Your task to perform on an android device: Clear all items from cart on newegg. Add "logitech g903" to the cart on newegg Image 0: 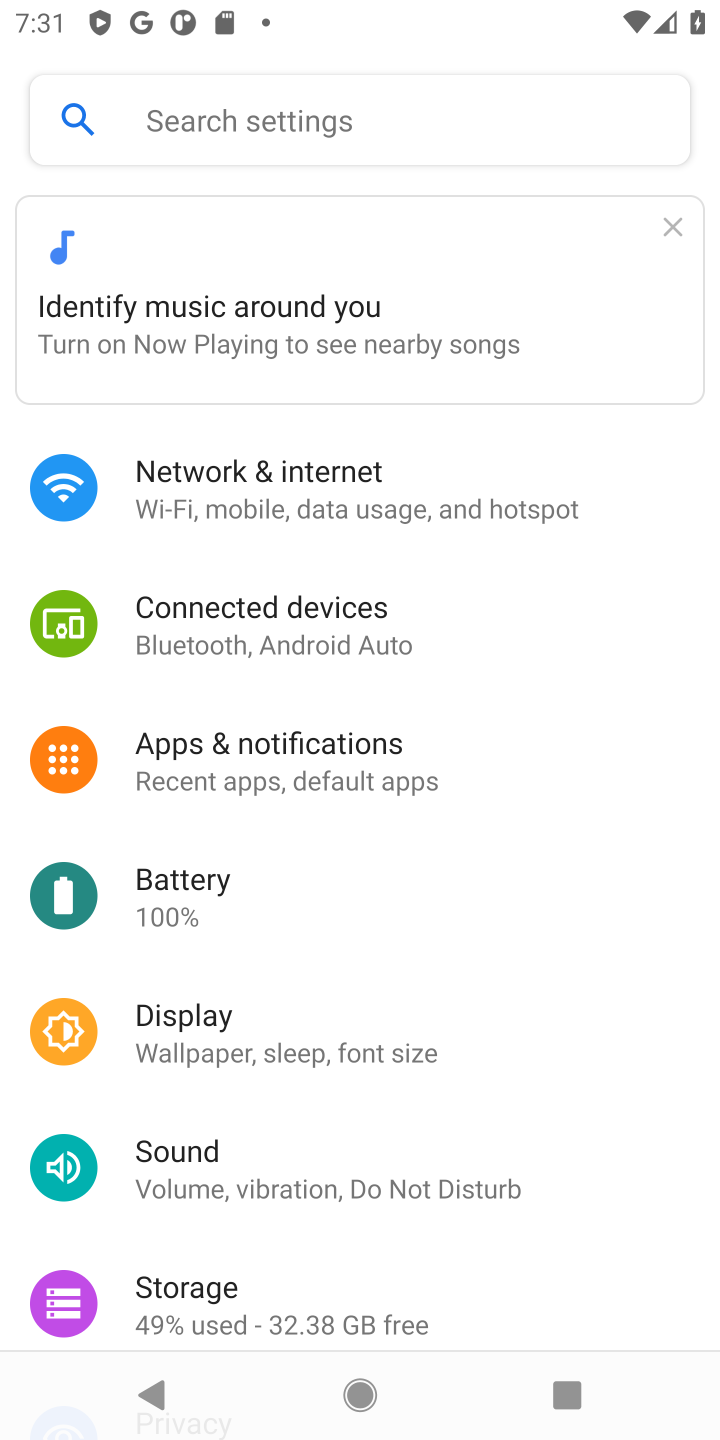
Step 0: press home button
Your task to perform on an android device: Clear all items from cart on newegg. Add "logitech g903" to the cart on newegg Image 1: 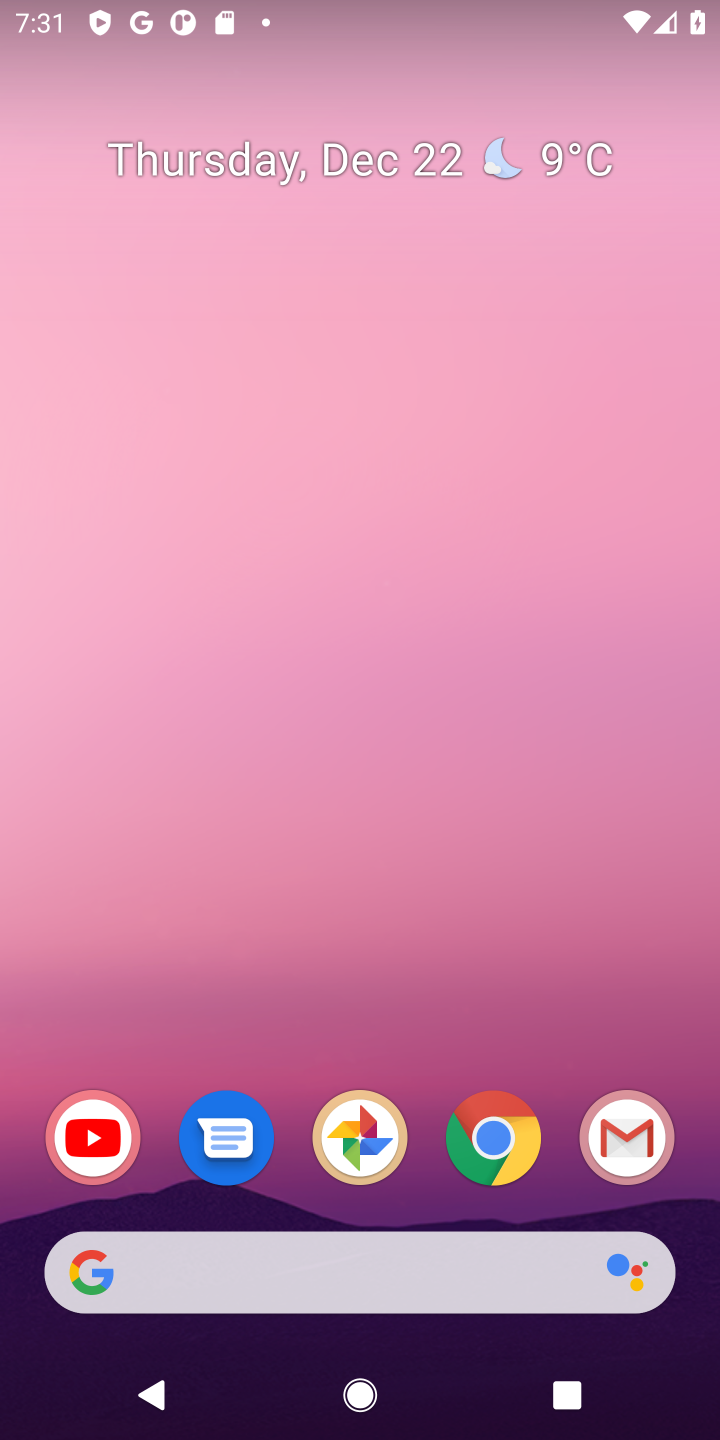
Step 1: click (491, 1147)
Your task to perform on an android device: Clear all items from cart on newegg. Add "logitech g903" to the cart on newegg Image 2: 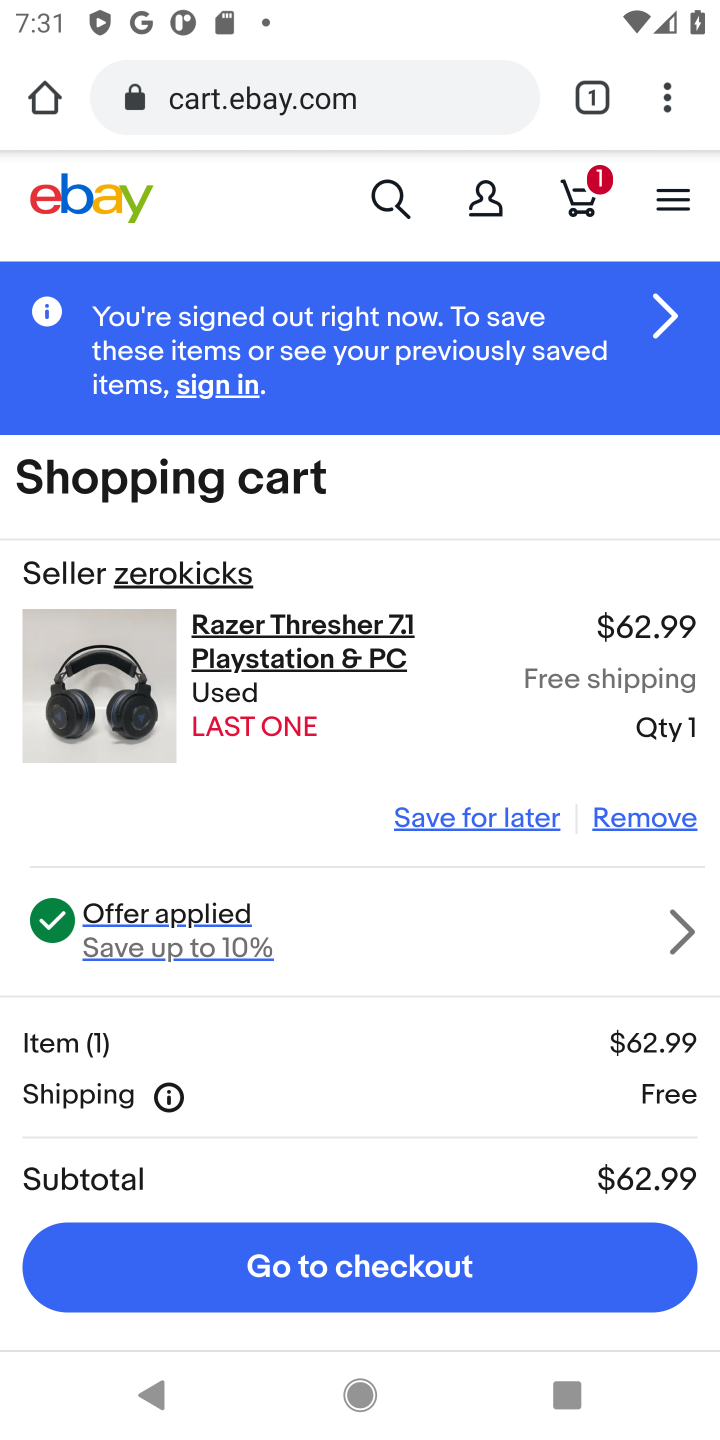
Step 2: click (465, 85)
Your task to perform on an android device: Clear all items from cart on newegg. Add "logitech g903" to the cart on newegg Image 3: 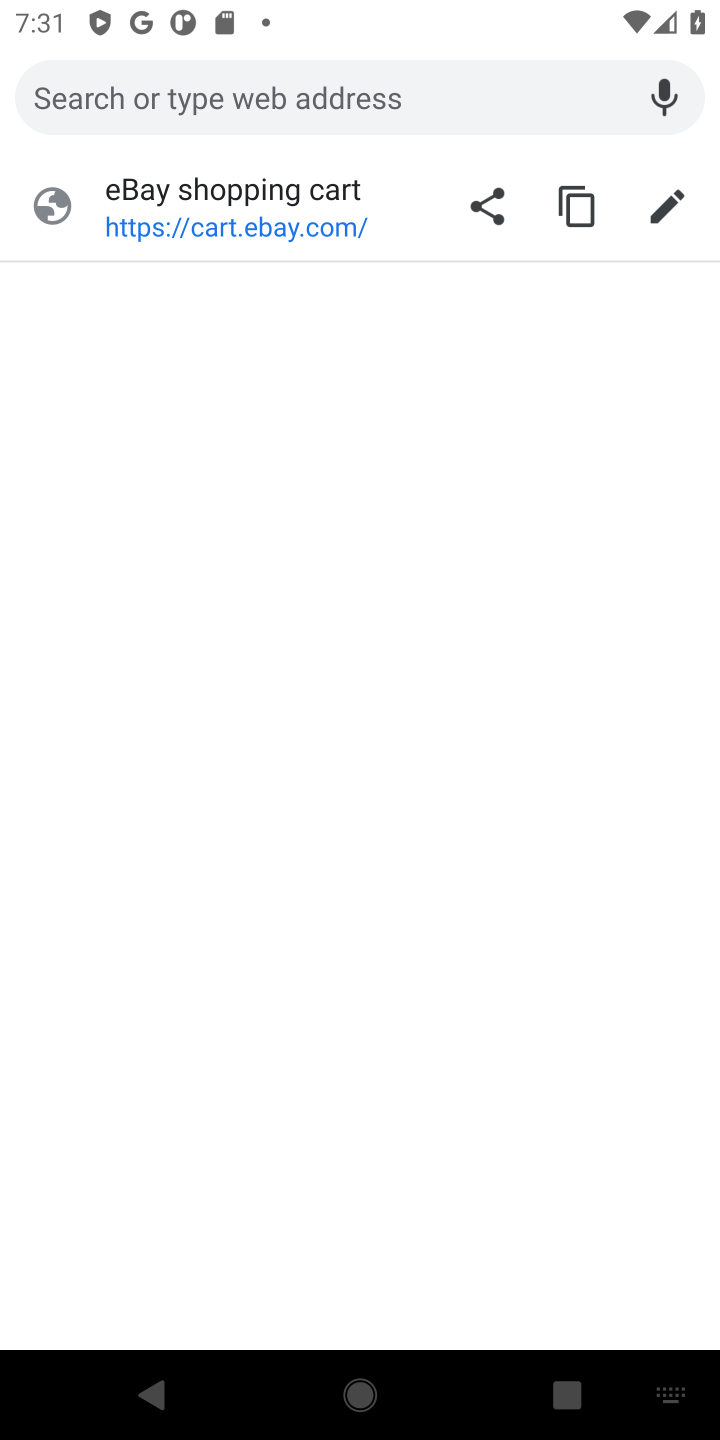
Step 3: type "newegg"
Your task to perform on an android device: Clear all items from cart on newegg. Add "logitech g903" to the cart on newegg Image 4: 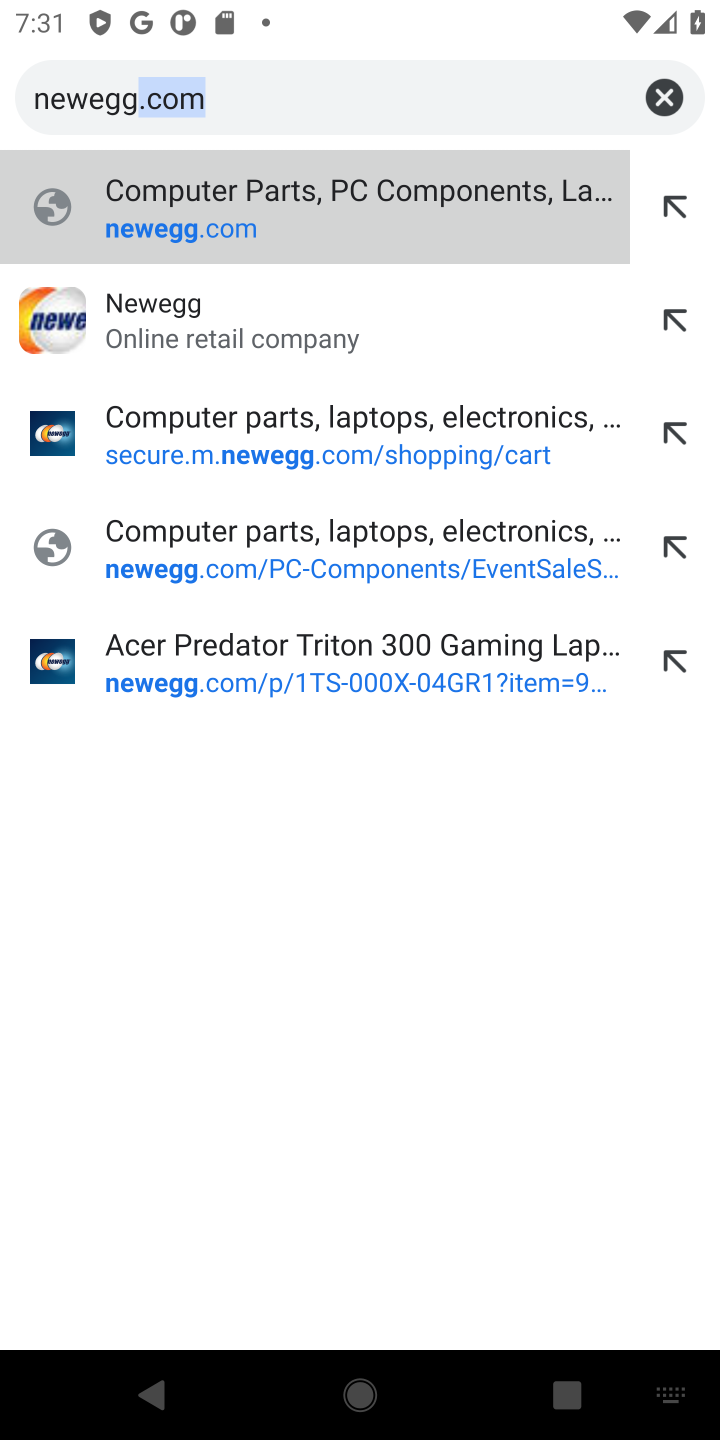
Step 4: click (392, 88)
Your task to perform on an android device: Clear all items from cart on newegg. Add "logitech g903" to the cart on newegg Image 5: 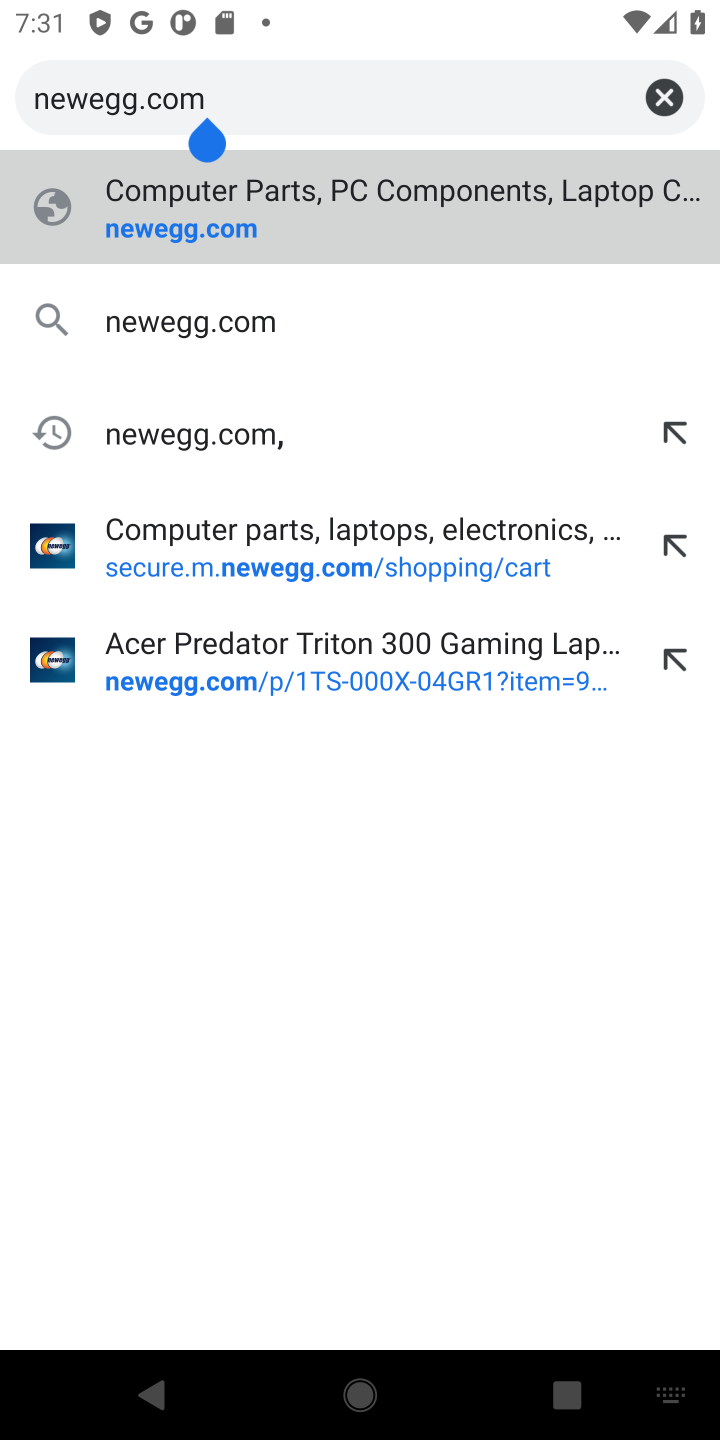
Step 5: click (257, 323)
Your task to perform on an android device: Clear all items from cart on newegg. Add "logitech g903" to the cart on newegg Image 6: 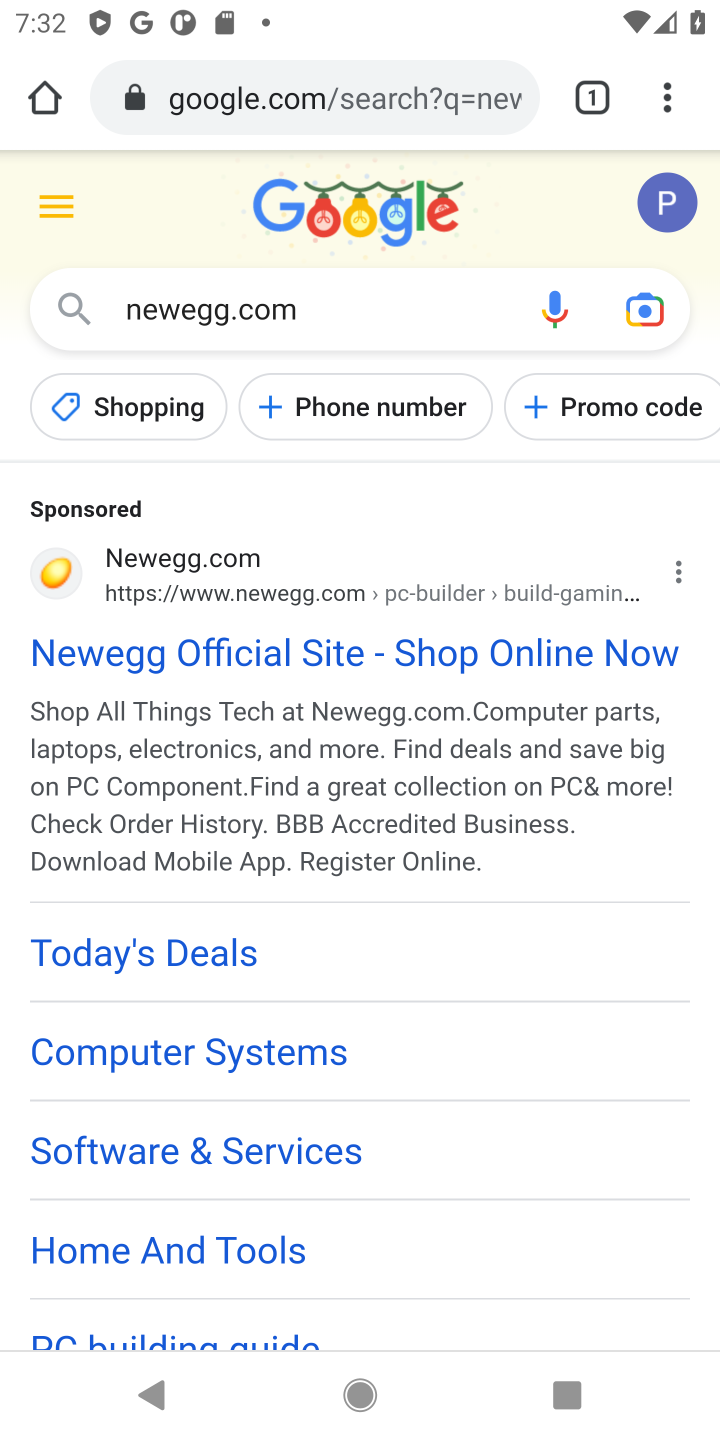
Step 6: drag from (282, 1027) to (290, 396)
Your task to perform on an android device: Clear all items from cart on newegg. Add "logitech g903" to the cart on newegg Image 7: 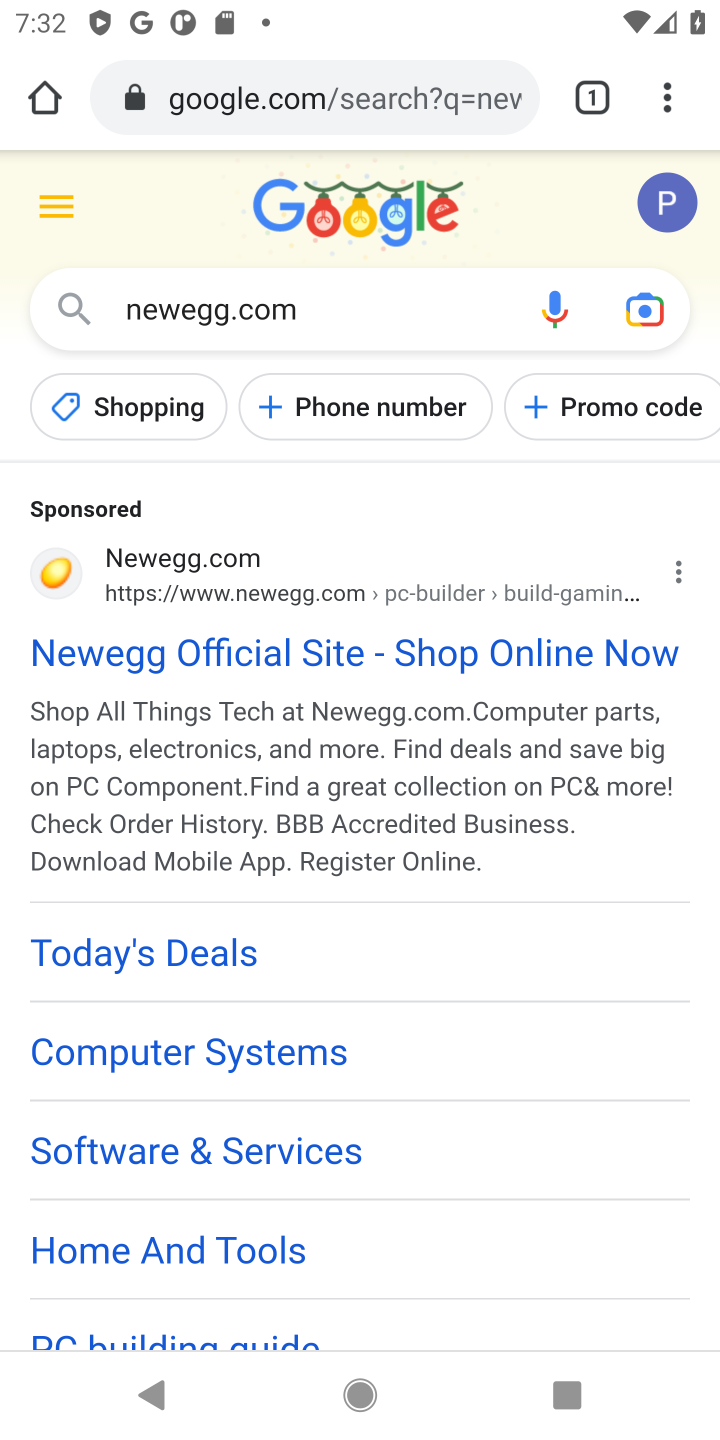
Step 7: drag from (190, 1134) to (125, 772)
Your task to perform on an android device: Clear all items from cart on newegg. Add "logitech g903" to the cart on newegg Image 8: 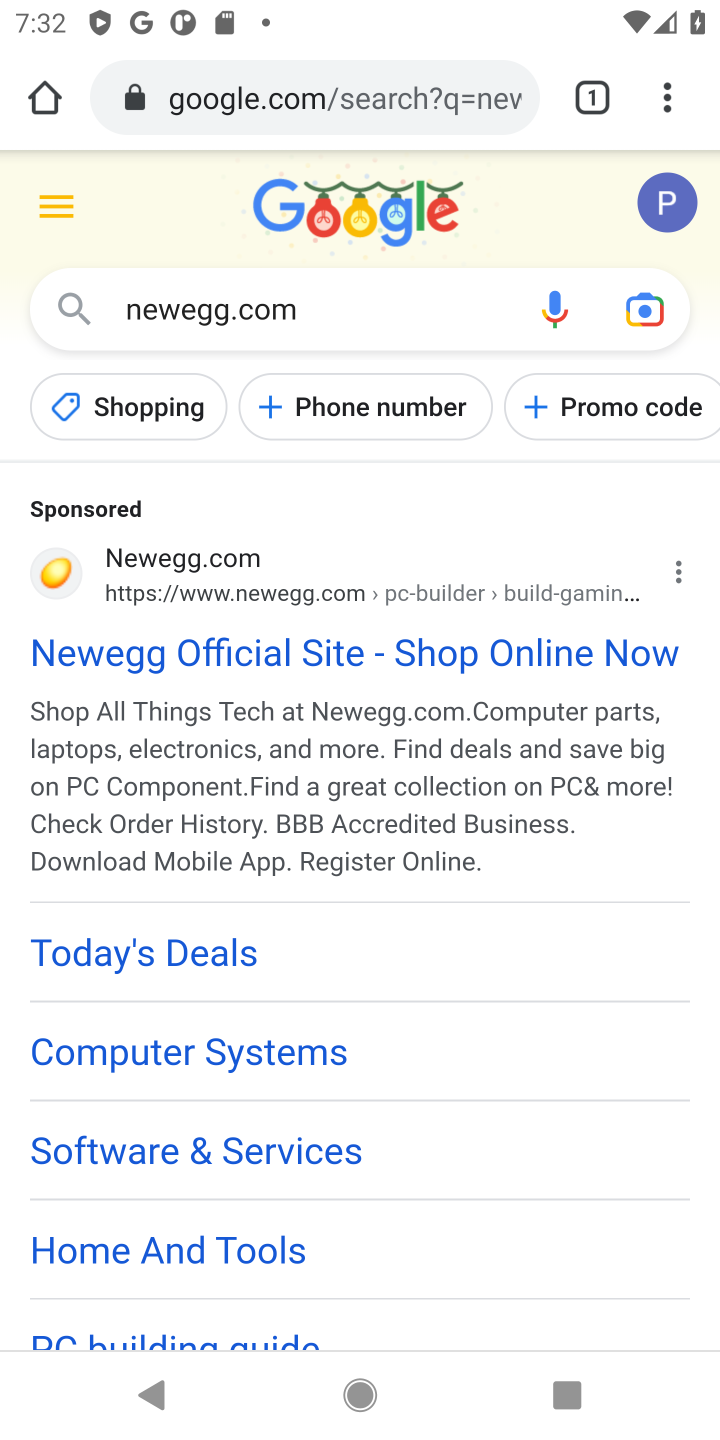
Step 8: drag from (229, 1038) to (217, 528)
Your task to perform on an android device: Clear all items from cart on newegg. Add "logitech g903" to the cart on newegg Image 9: 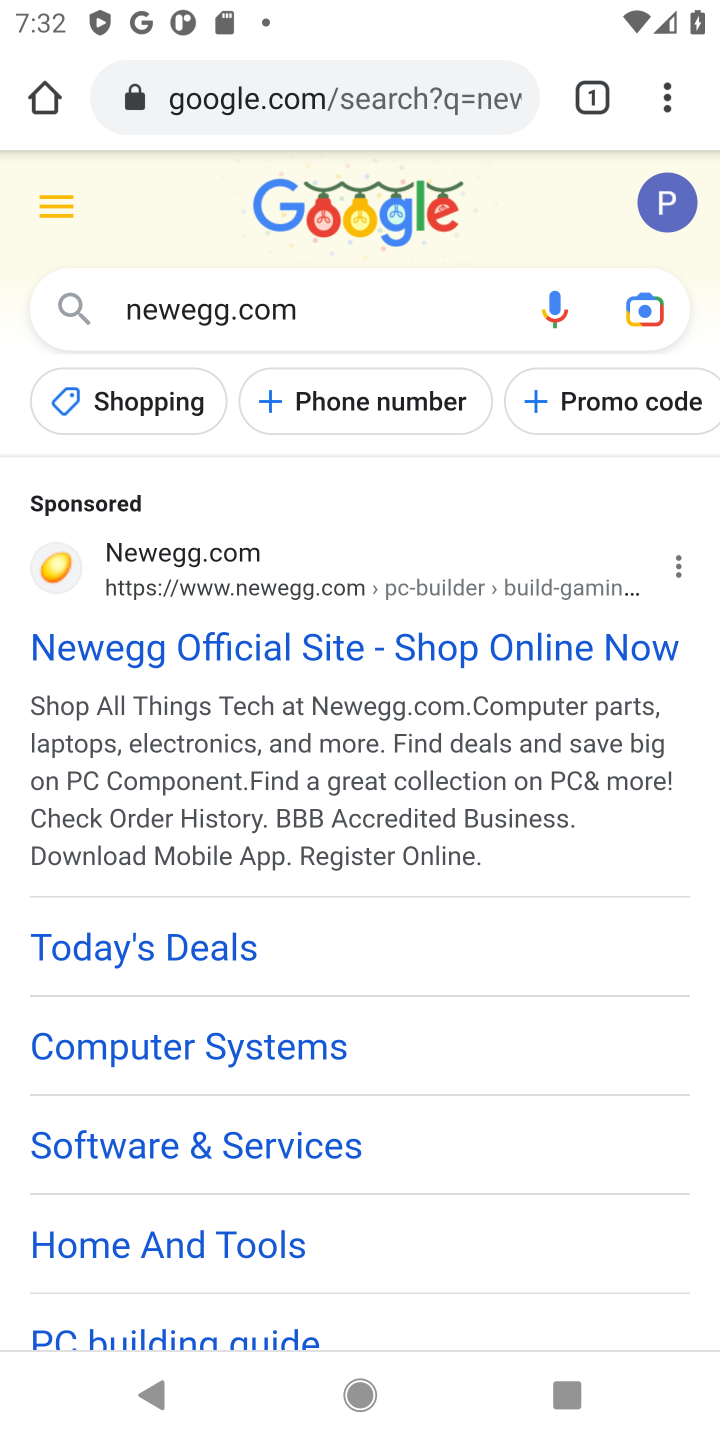
Step 9: click (235, 583)
Your task to perform on an android device: Clear all items from cart on newegg. Add "logitech g903" to the cart on newegg Image 10: 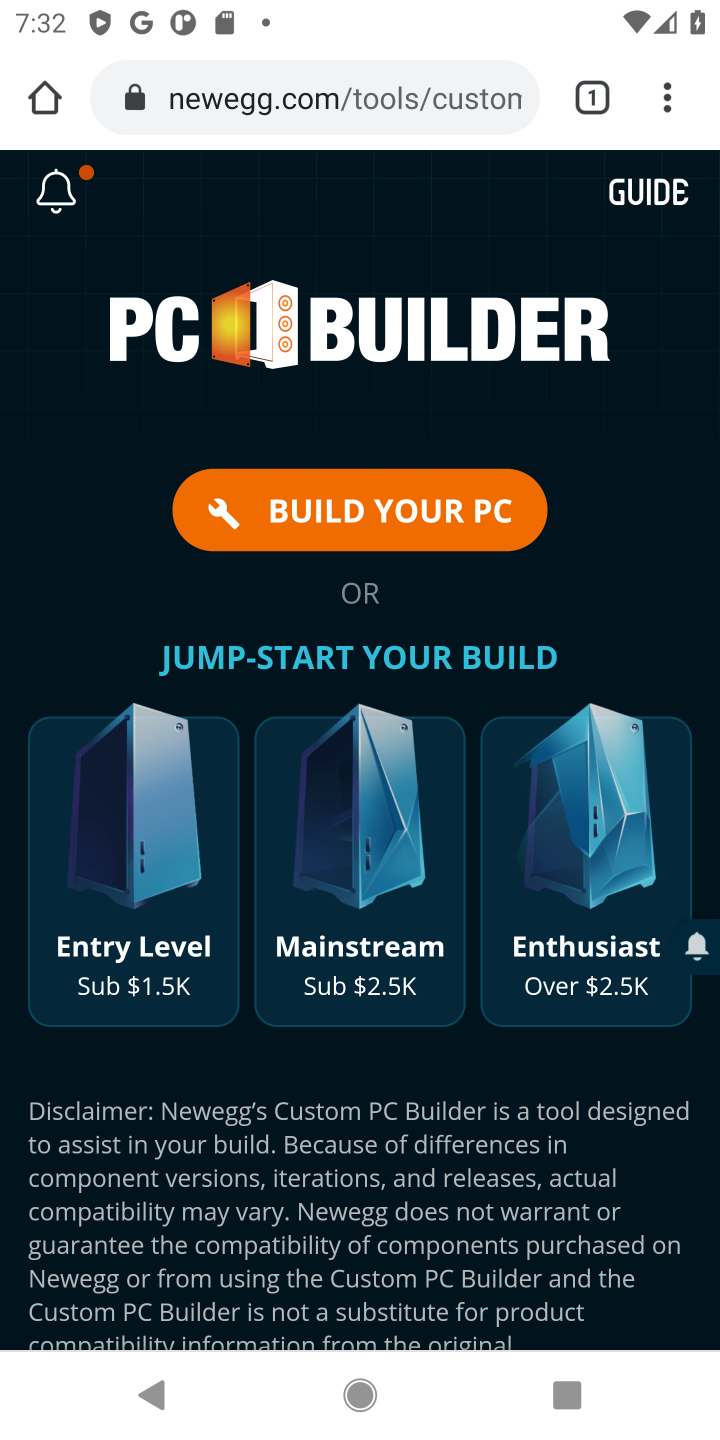
Step 10: press back button
Your task to perform on an android device: Clear all items from cart on newegg. Add "logitech g903" to the cart on newegg Image 11: 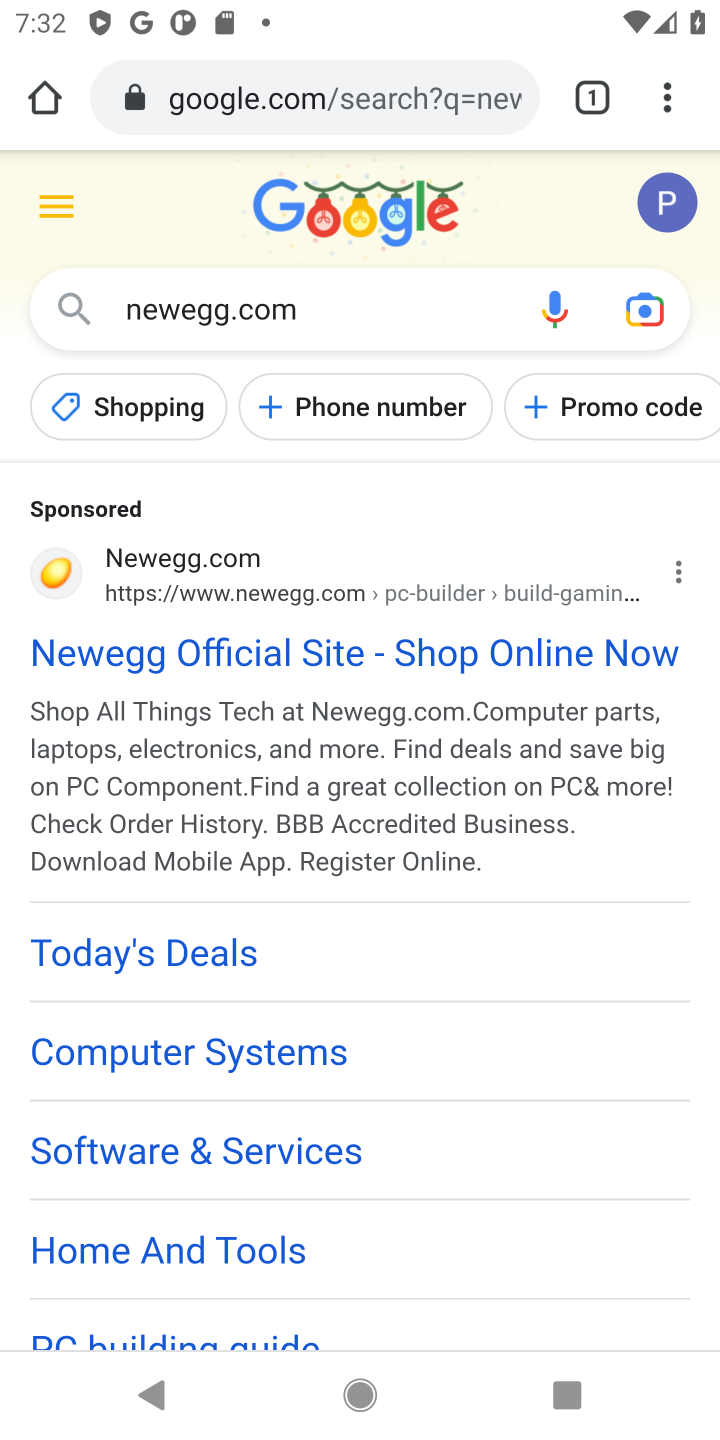
Step 11: drag from (457, 1156) to (451, 848)
Your task to perform on an android device: Clear all items from cart on newegg. Add "logitech g903" to the cart on newegg Image 12: 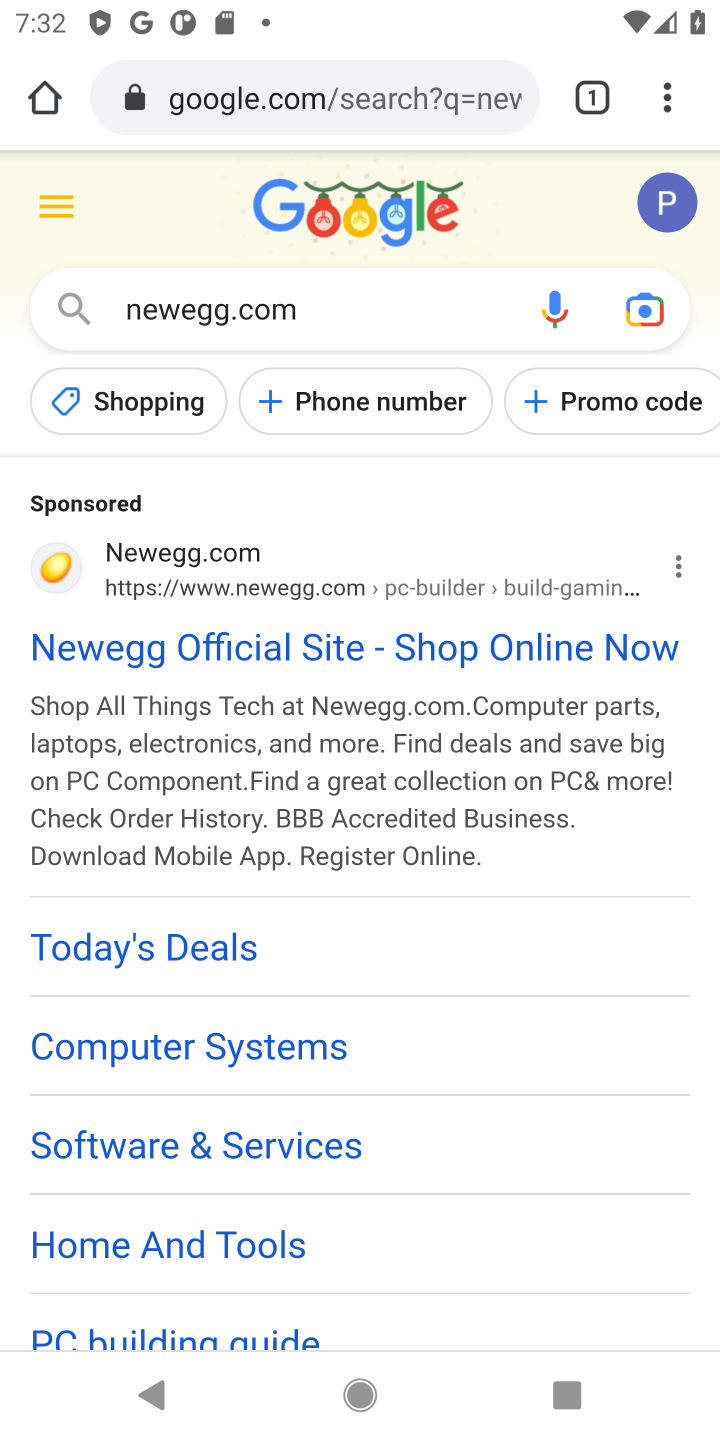
Step 12: drag from (112, 1094) to (2, 549)
Your task to perform on an android device: Clear all items from cart on newegg. Add "logitech g903" to the cart on newegg Image 13: 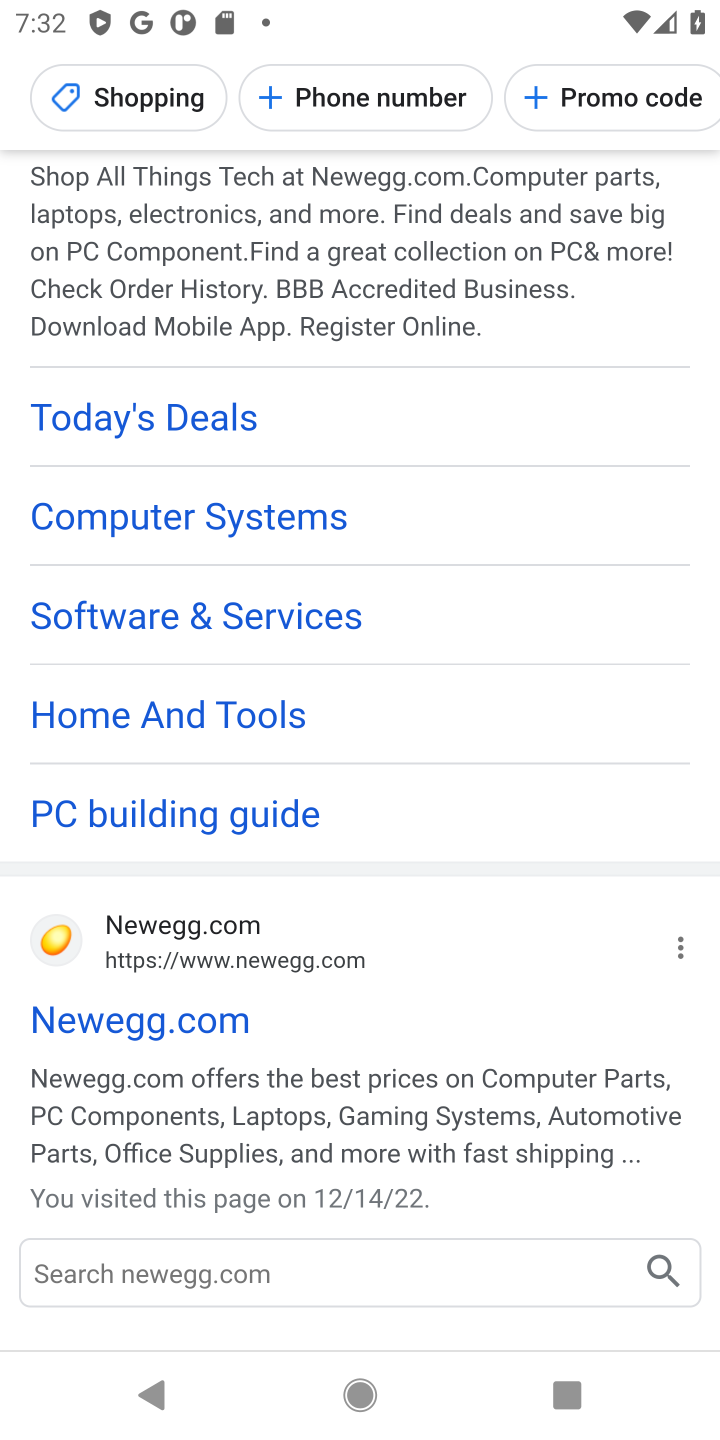
Step 13: click (303, 959)
Your task to perform on an android device: Clear all items from cart on newegg. Add "logitech g903" to the cart on newegg Image 14: 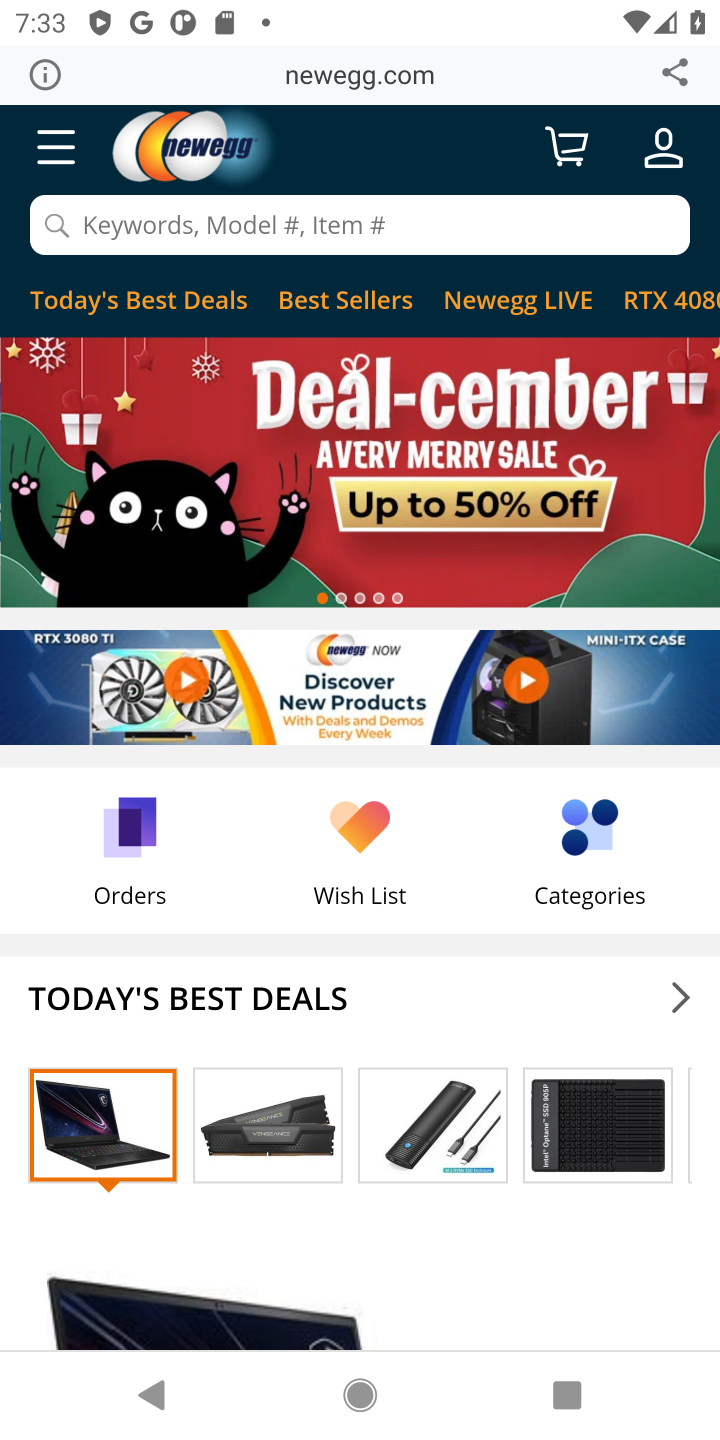
Step 14: click (480, 235)
Your task to perform on an android device: Clear all items from cart on newegg. Add "logitech g903" to the cart on newegg Image 15: 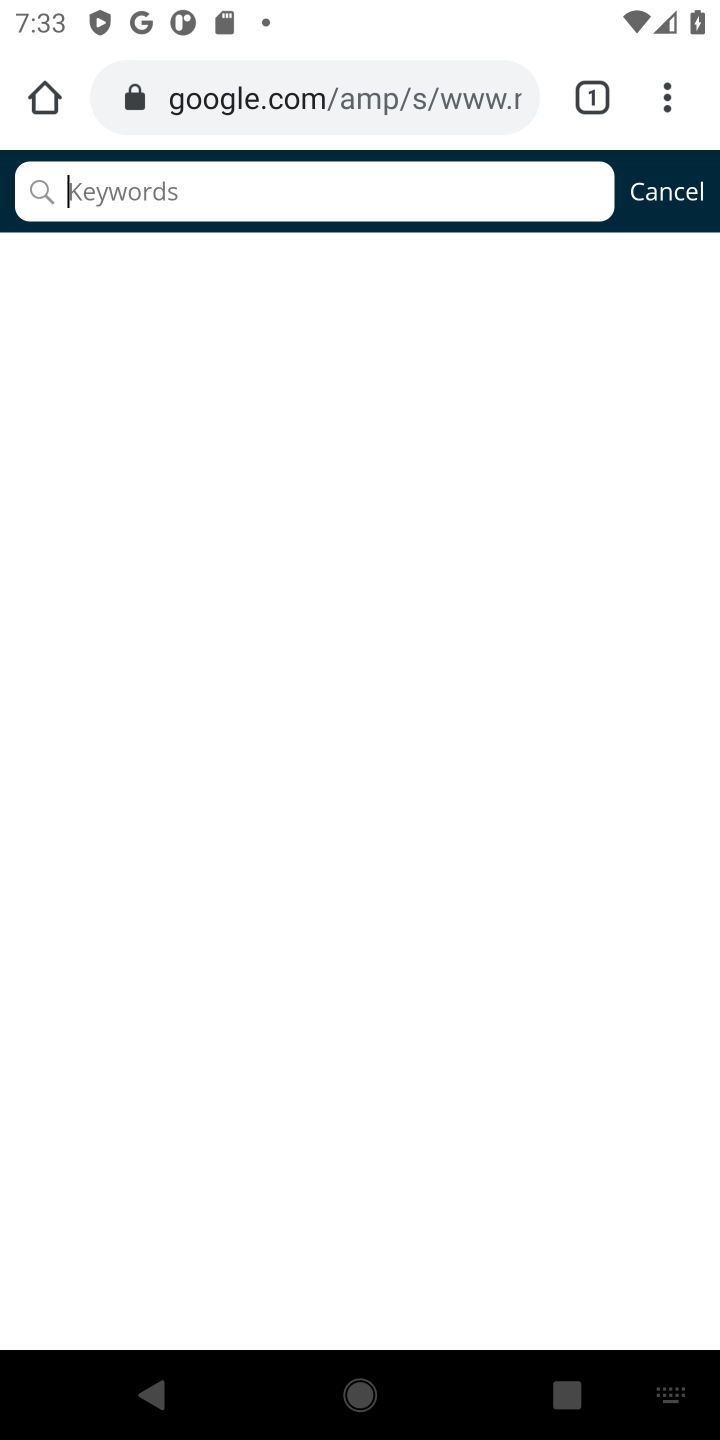
Step 15: click (568, 152)
Your task to perform on an android device: Clear all items from cart on newegg. Add "logitech g903" to the cart on newegg Image 16: 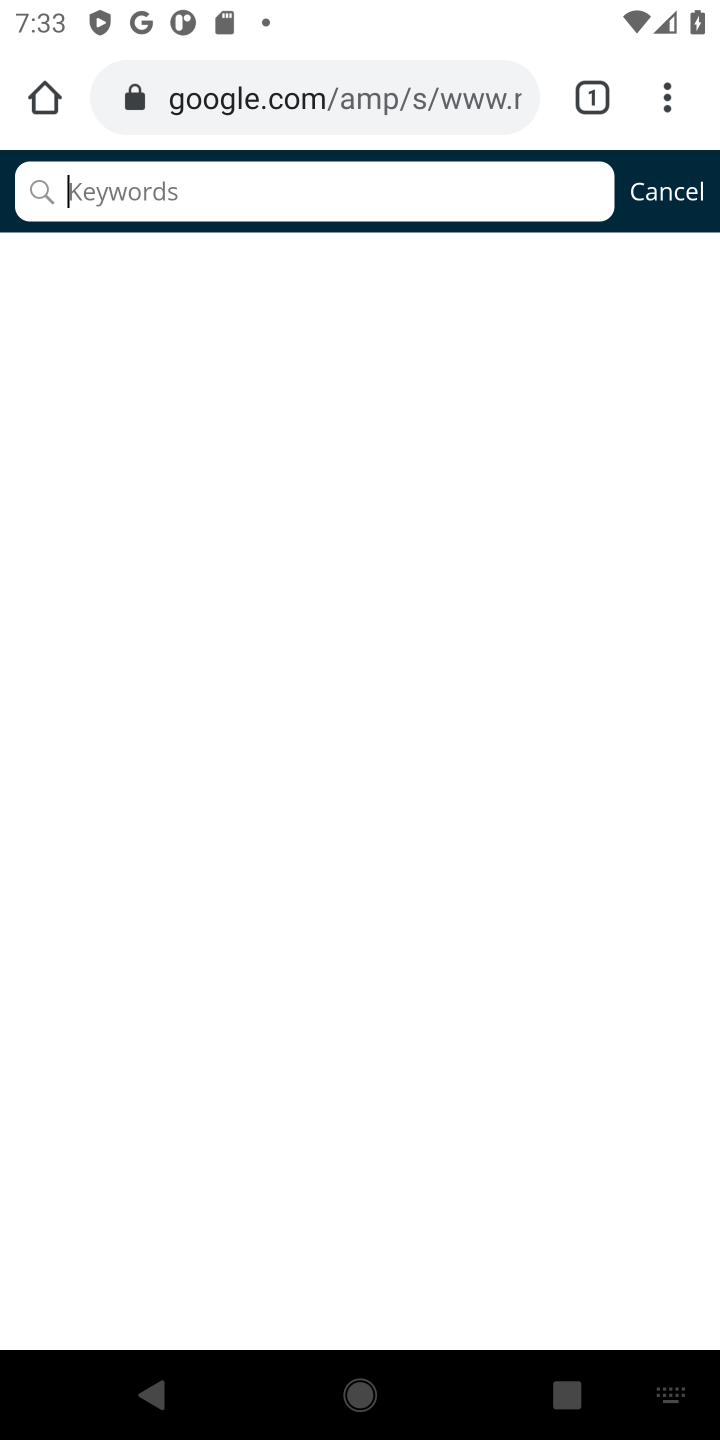
Step 16: click (649, 184)
Your task to perform on an android device: Clear all items from cart on newegg. Add "logitech g903" to the cart on newegg Image 17: 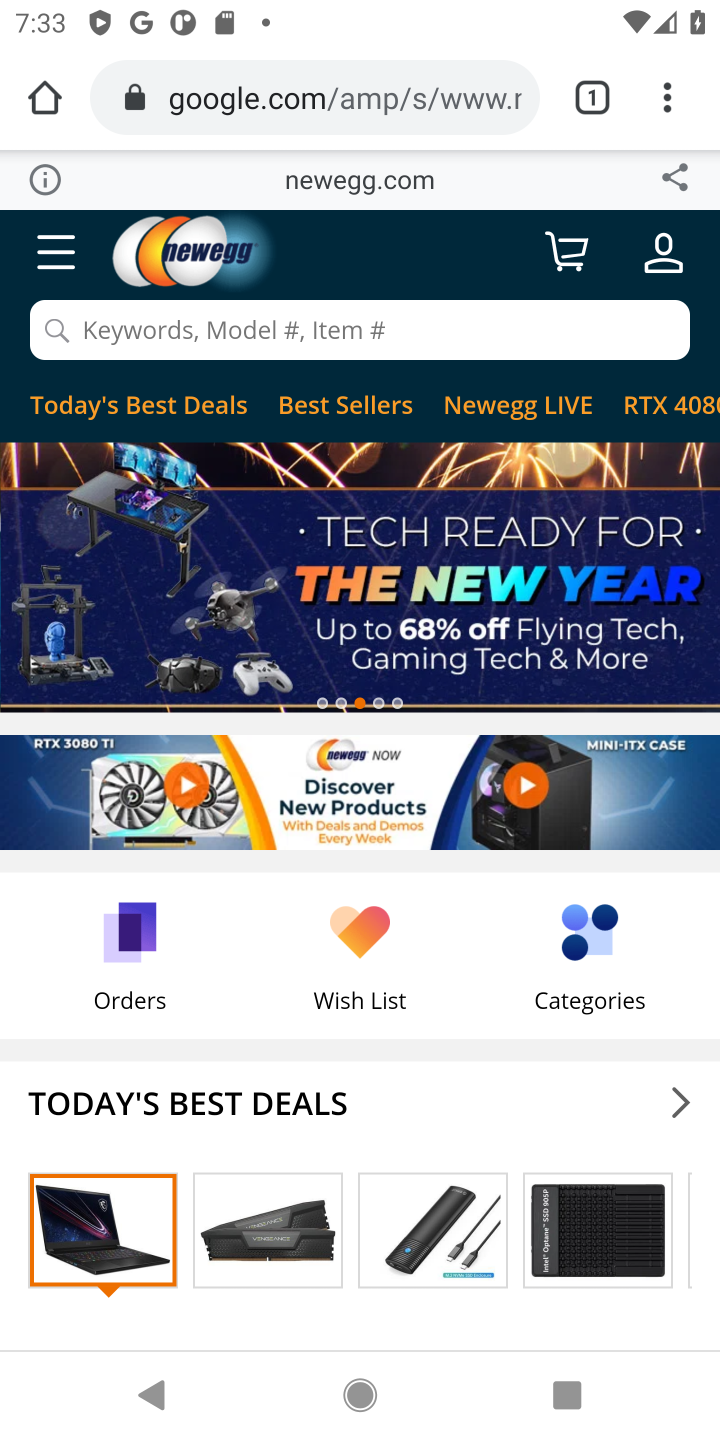
Step 17: click (571, 267)
Your task to perform on an android device: Clear all items from cart on newegg. Add "logitech g903" to the cart on newegg Image 18: 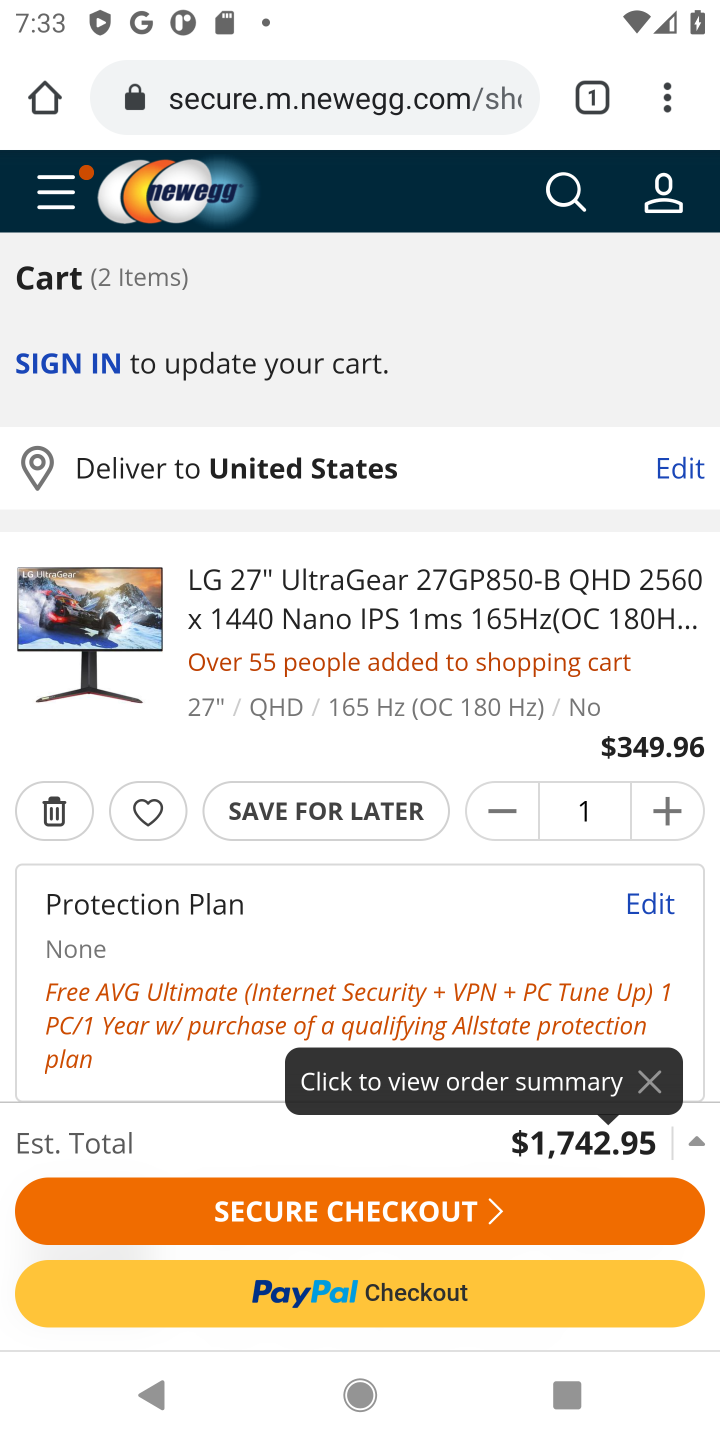
Step 18: click (52, 813)
Your task to perform on an android device: Clear all items from cart on newegg. Add "logitech g903" to the cart on newegg Image 19: 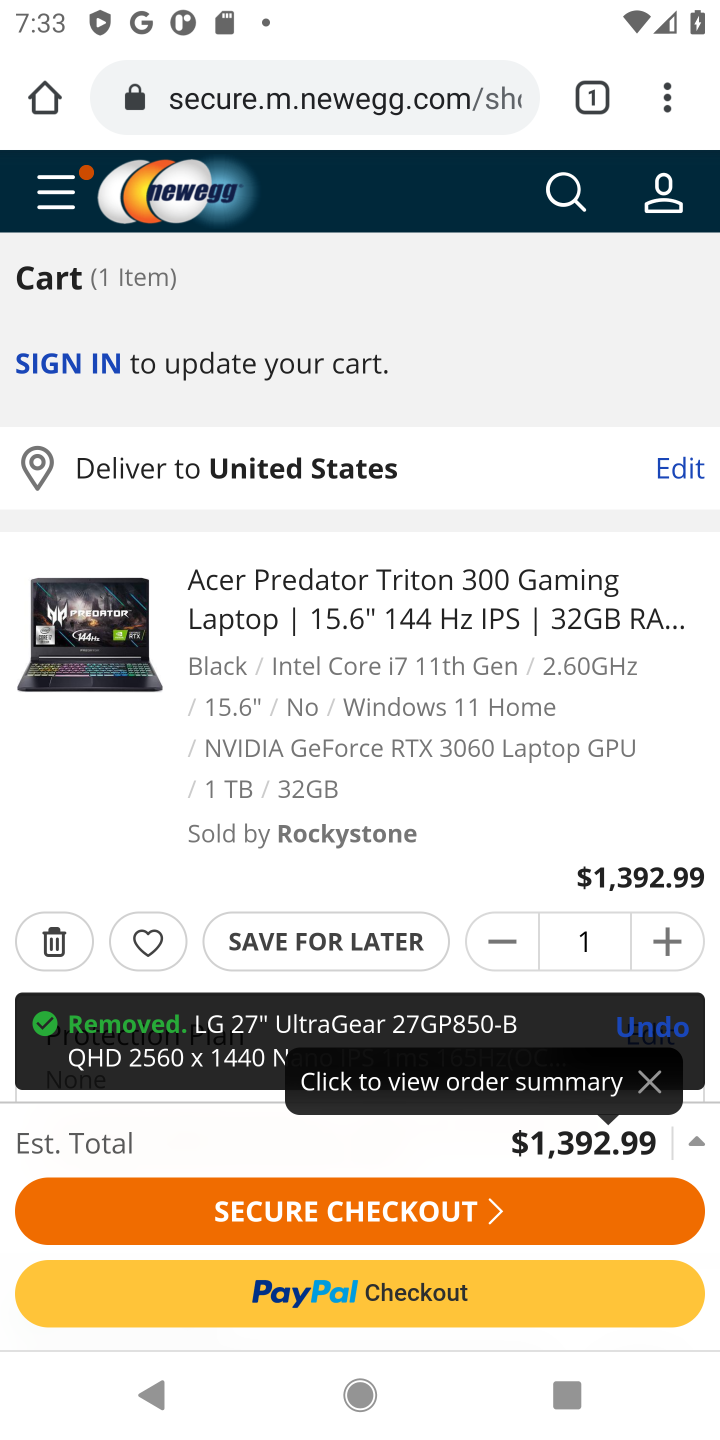
Step 19: click (47, 928)
Your task to perform on an android device: Clear all items from cart on newegg. Add "logitech g903" to the cart on newegg Image 20: 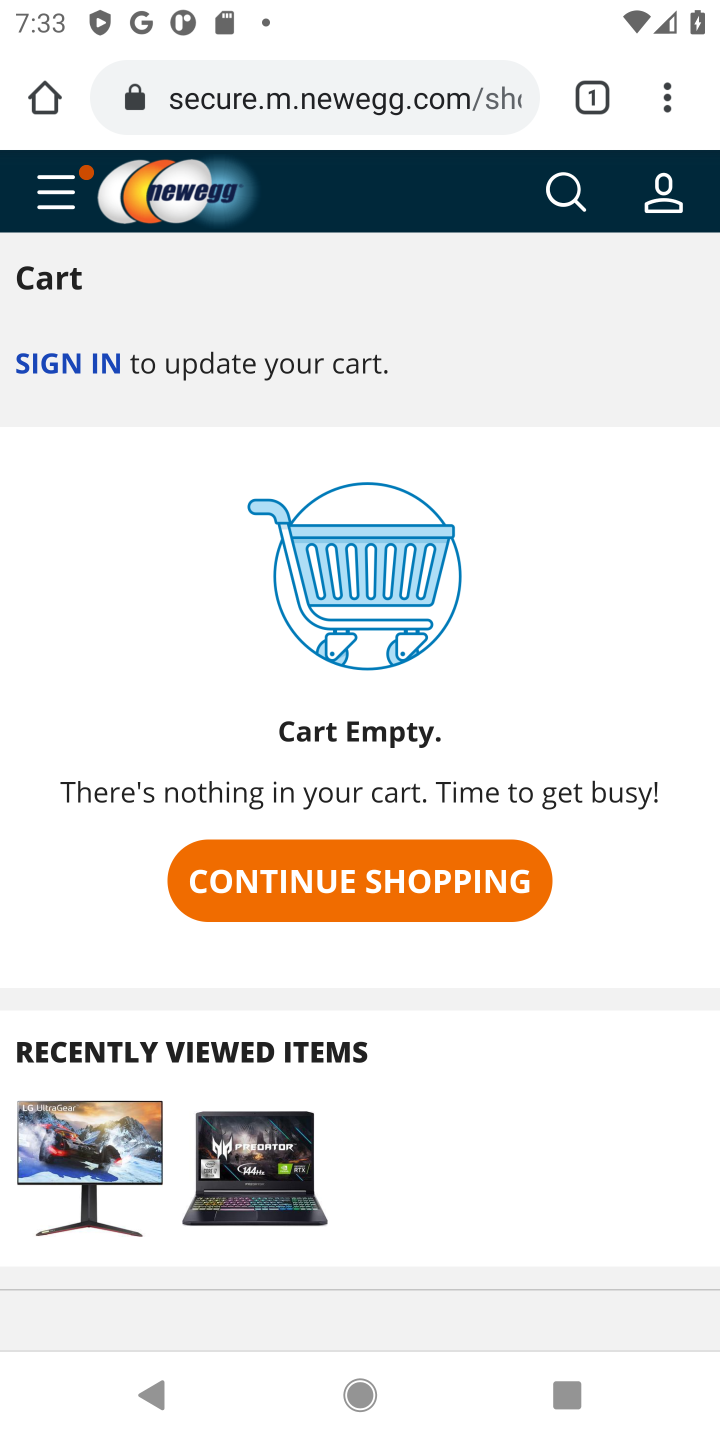
Step 20: click (566, 191)
Your task to perform on an android device: Clear all items from cart on newegg. Add "logitech g903" to the cart on newegg Image 21: 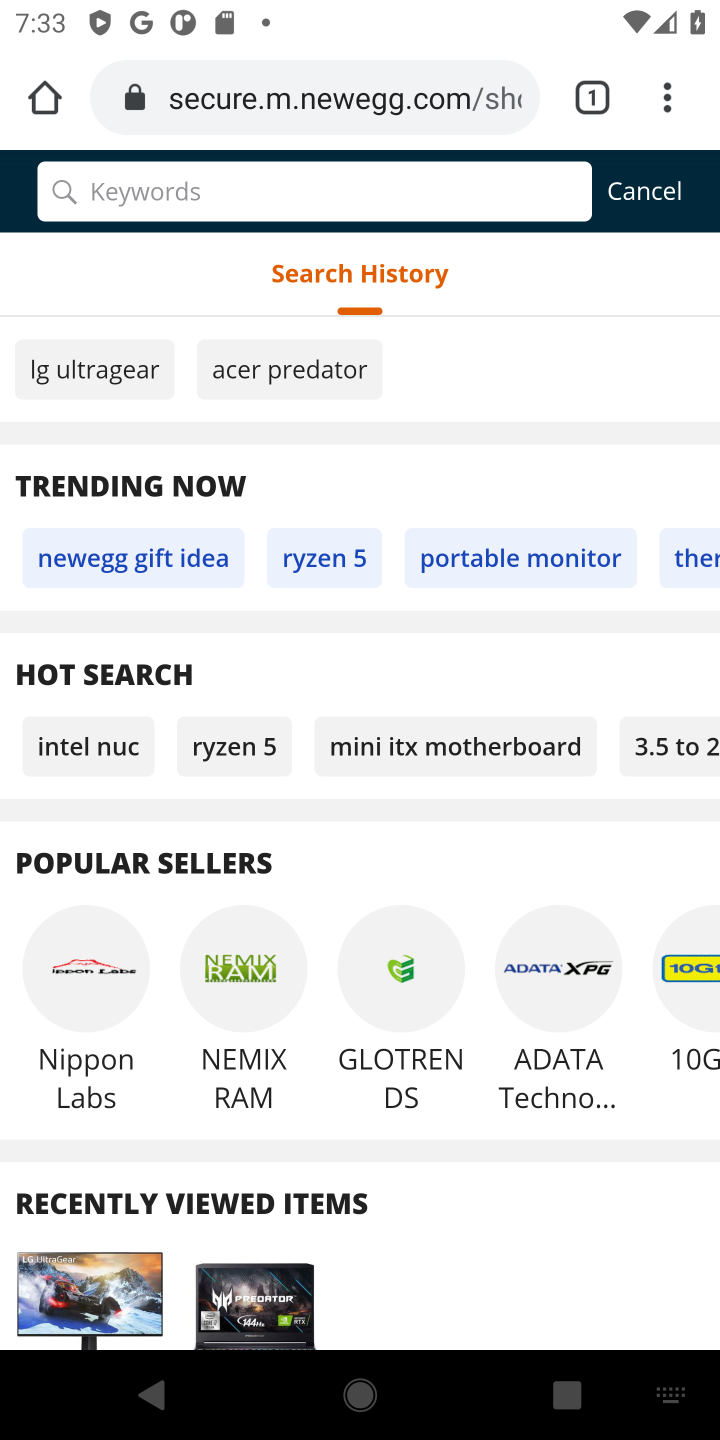
Step 21: type "logitech g903"
Your task to perform on an android device: Clear all items from cart on newegg. Add "logitech g903" to the cart on newegg Image 22: 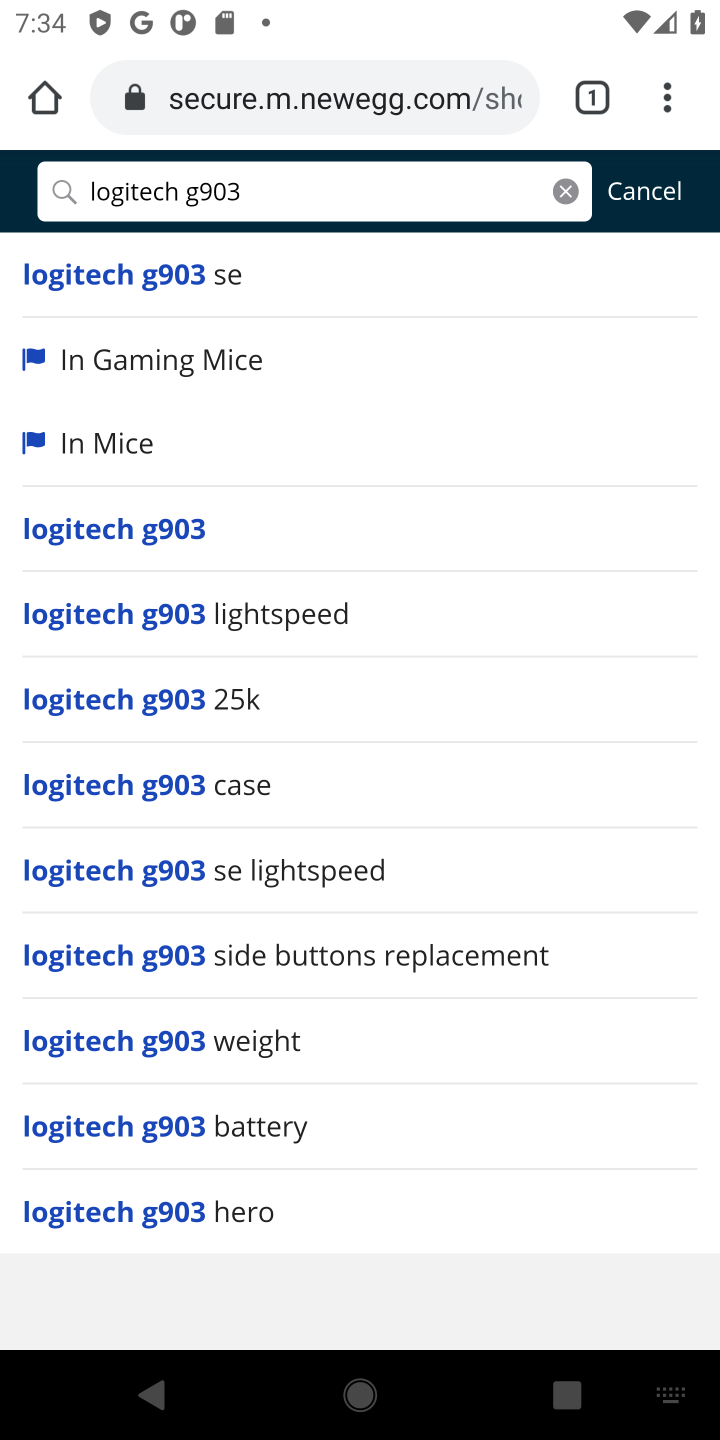
Step 22: click (133, 539)
Your task to perform on an android device: Clear all items from cart on newegg. Add "logitech g903" to the cart on newegg Image 23: 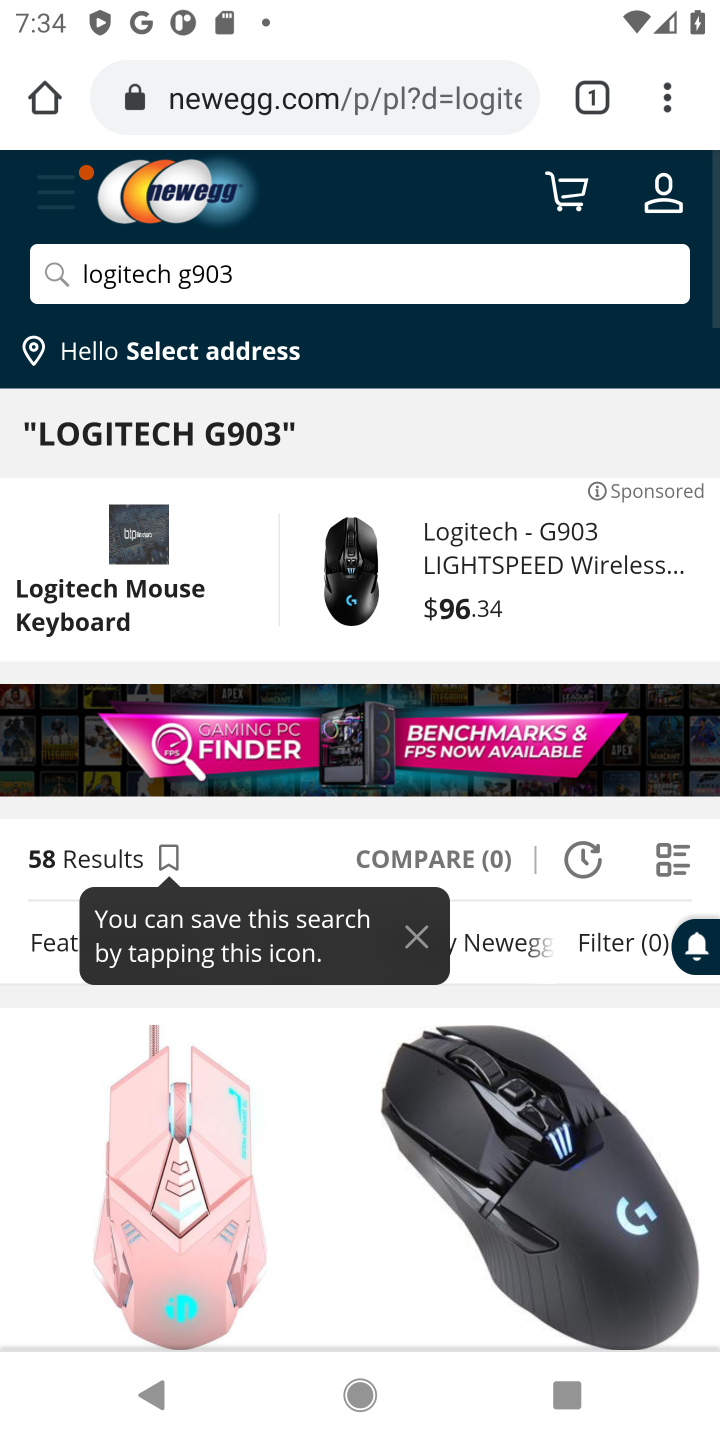
Step 23: drag from (270, 1044) to (233, 609)
Your task to perform on an android device: Clear all items from cart on newegg. Add "logitech g903" to the cart on newegg Image 24: 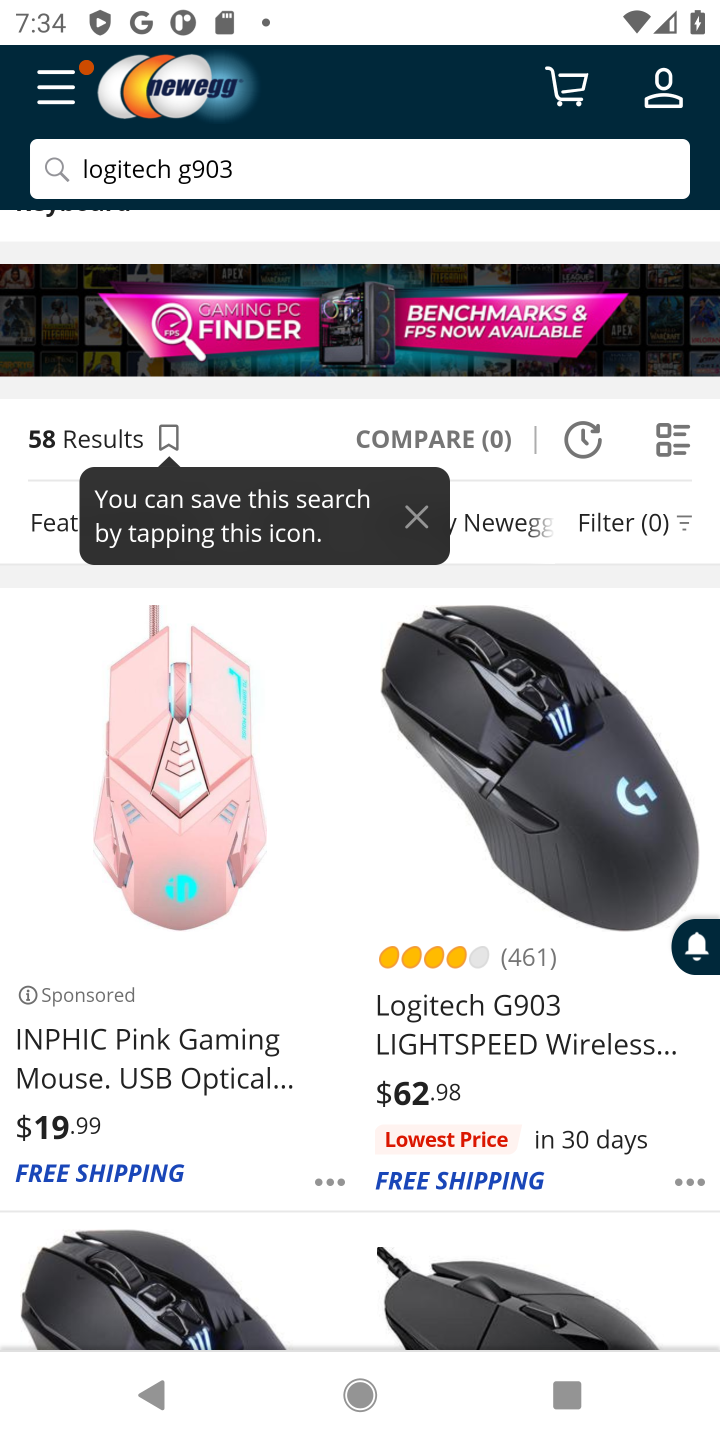
Step 24: click (566, 738)
Your task to perform on an android device: Clear all items from cart on newegg. Add "logitech g903" to the cart on newegg Image 25: 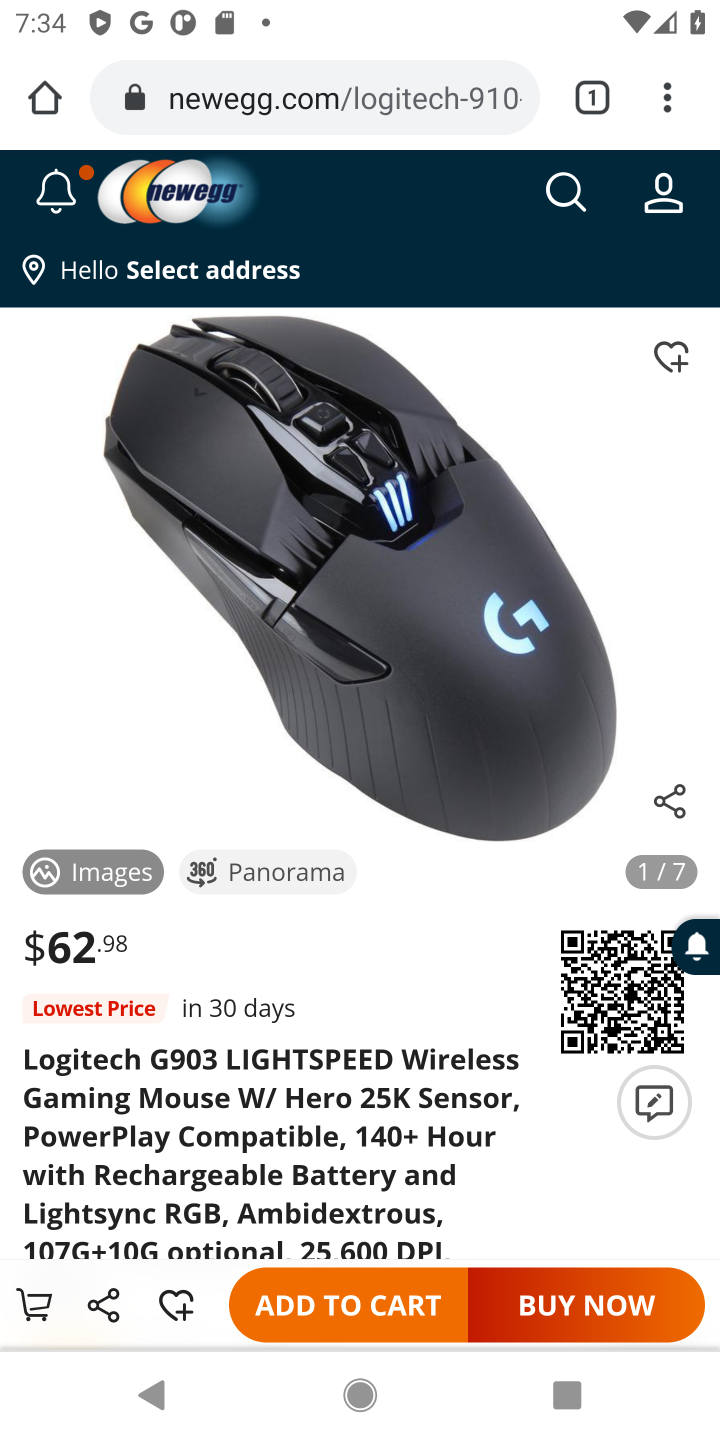
Step 25: click (355, 1303)
Your task to perform on an android device: Clear all items from cart on newegg. Add "logitech g903" to the cart on newegg Image 26: 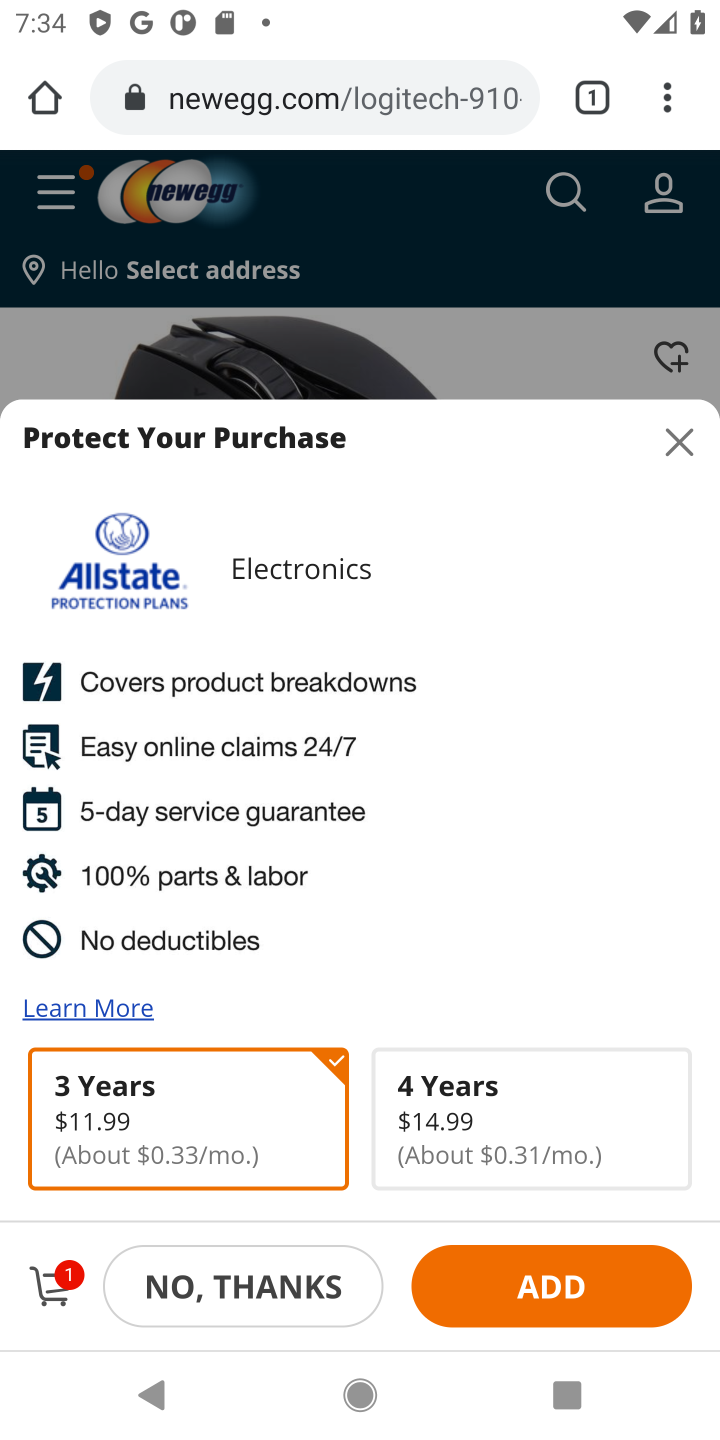
Step 26: click (42, 1284)
Your task to perform on an android device: Clear all items from cart on newegg. Add "logitech g903" to the cart on newegg Image 27: 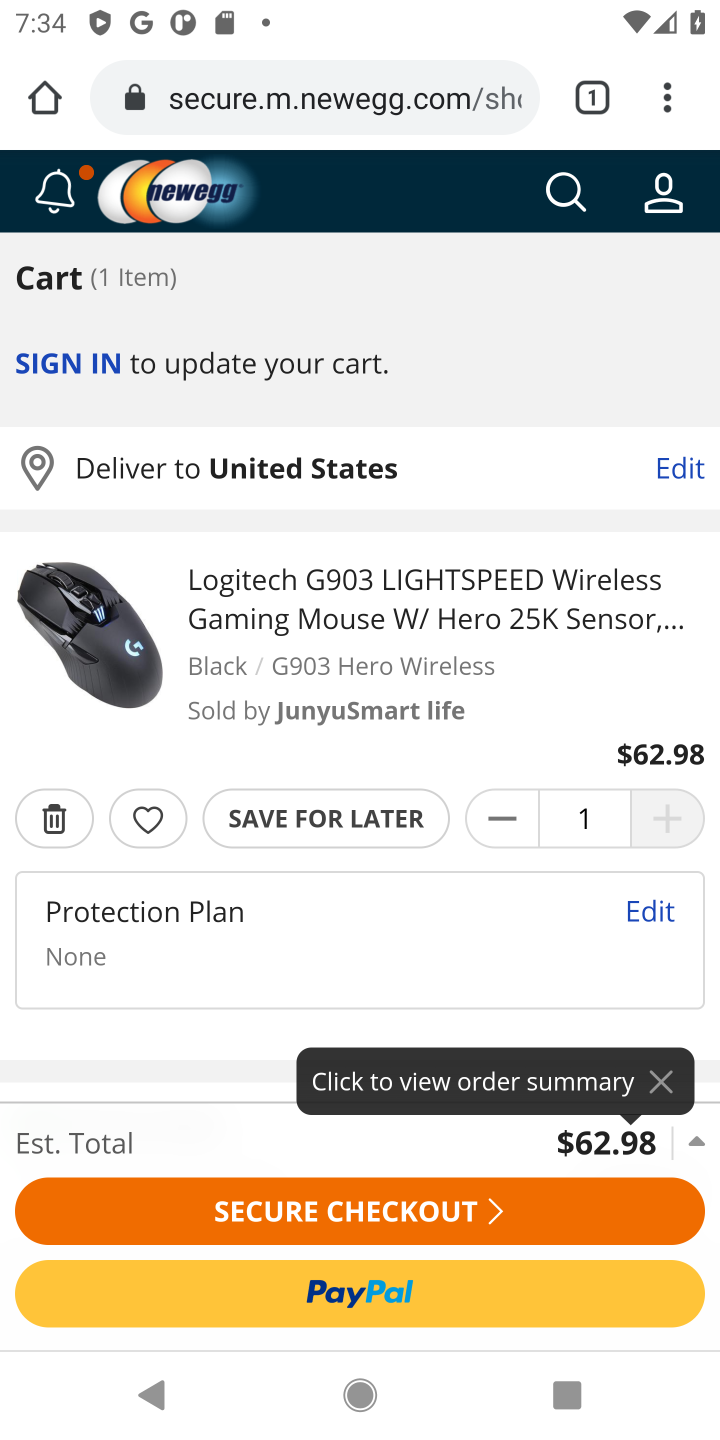
Step 27: task complete